Your task to perform on an android device: add a contact in the contacts app Image 0: 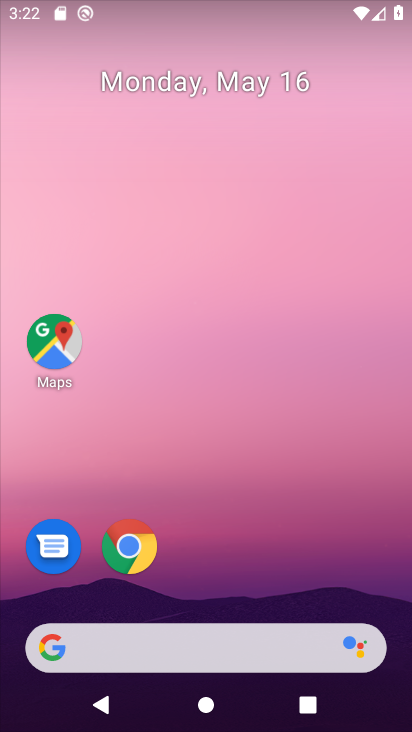
Step 0: drag from (356, 592) to (360, 80)
Your task to perform on an android device: add a contact in the contacts app Image 1: 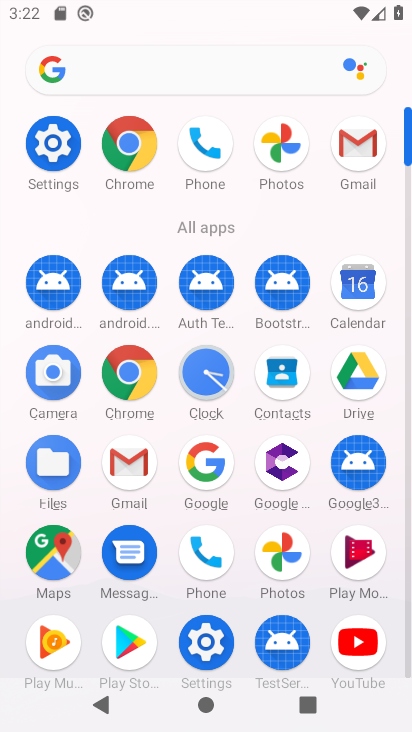
Step 1: click (286, 377)
Your task to perform on an android device: add a contact in the contacts app Image 2: 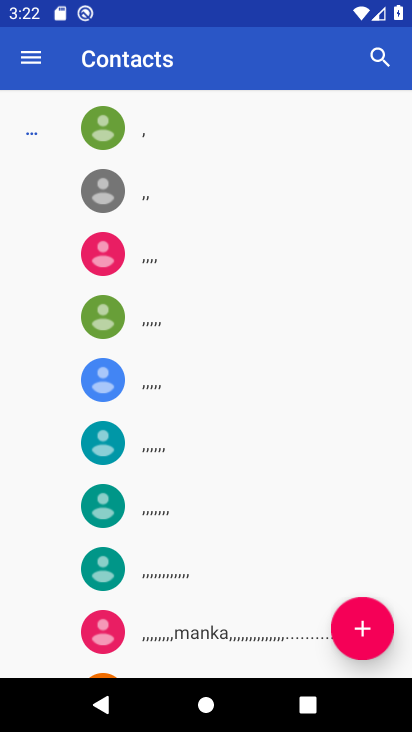
Step 2: click (367, 630)
Your task to perform on an android device: add a contact in the contacts app Image 3: 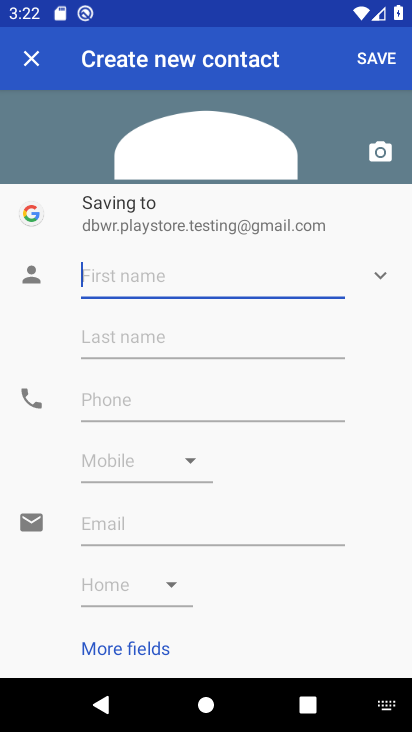
Step 3: click (197, 282)
Your task to perform on an android device: add a contact in the contacts app Image 4: 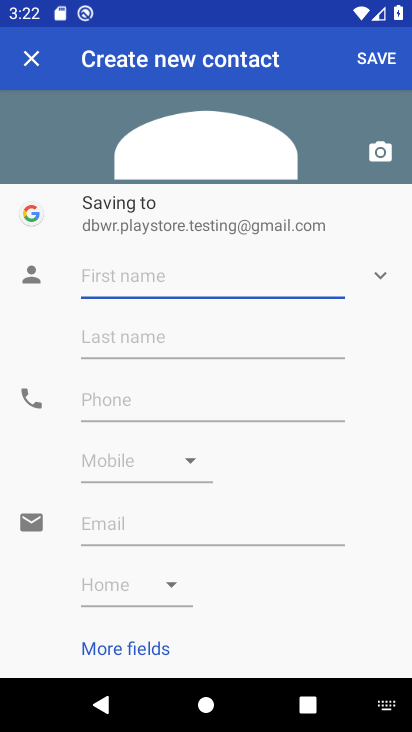
Step 4: type "maan"
Your task to perform on an android device: add a contact in the contacts app Image 5: 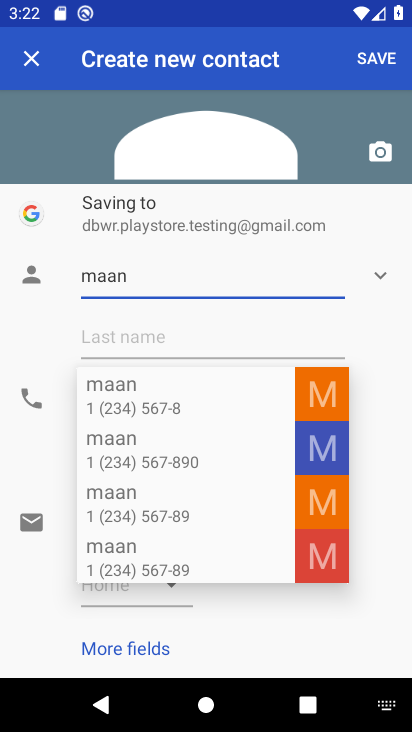
Step 5: click (401, 338)
Your task to perform on an android device: add a contact in the contacts app Image 6: 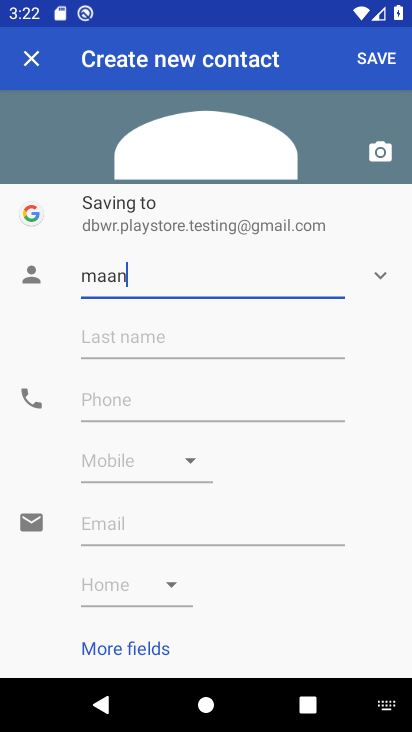
Step 6: click (239, 393)
Your task to perform on an android device: add a contact in the contacts app Image 7: 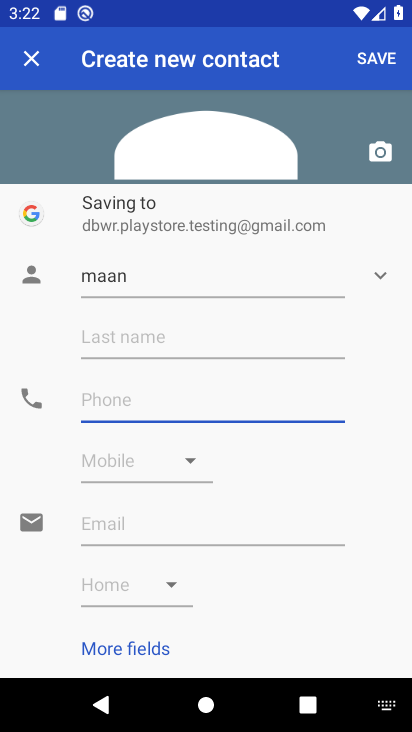
Step 7: type "123456789"
Your task to perform on an android device: add a contact in the contacts app Image 8: 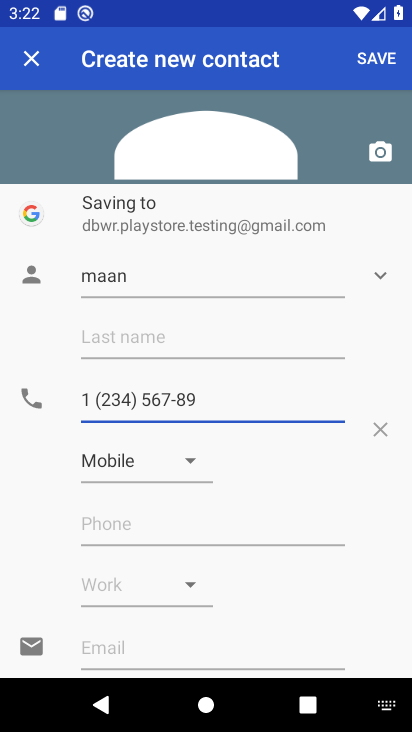
Step 8: click (376, 59)
Your task to perform on an android device: add a contact in the contacts app Image 9: 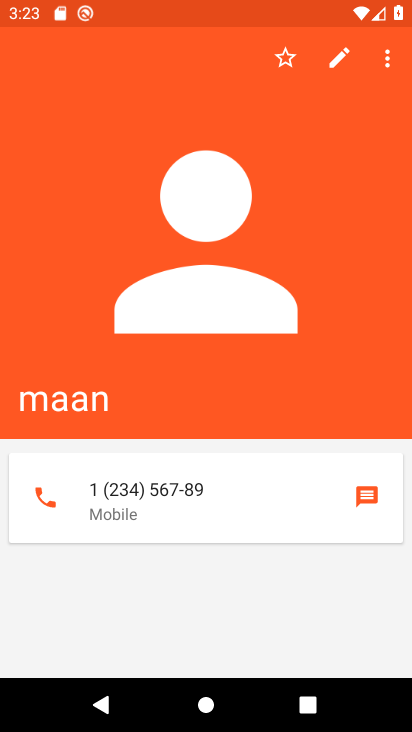
Step 9: task complete